Your task to perform on an android device: set the stopwatch Image 0: 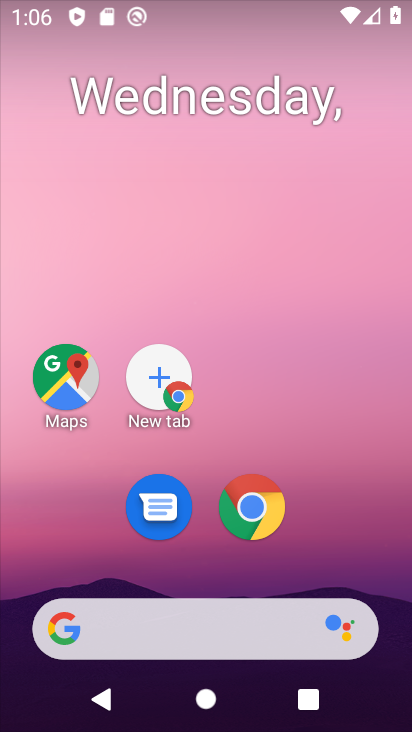
Step 0: drag from (328, 407) to (319, 160)
Your task to perform on an android device: set the stopwatch Image 1: 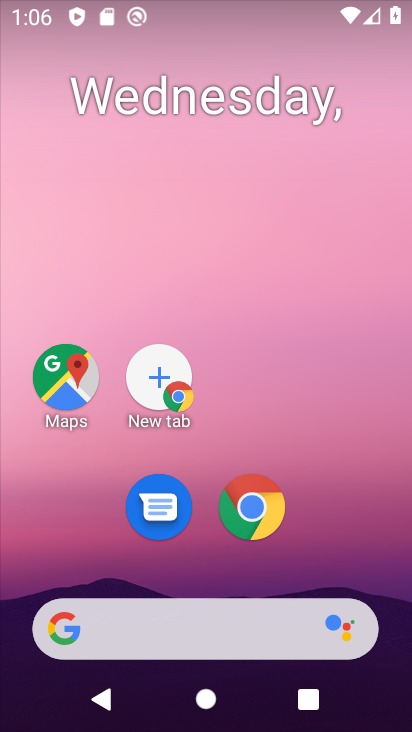
Step 1: drag from (354, 525) to (351, 166)
Your task to perform on an android device: set the stopwatch Image 2: 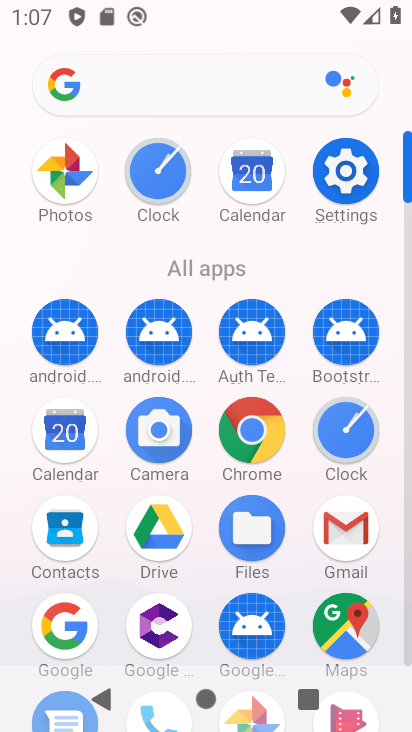
Step 2: click (331, 425)
Your task to perform on an android device: set the stopwatch Image 3: 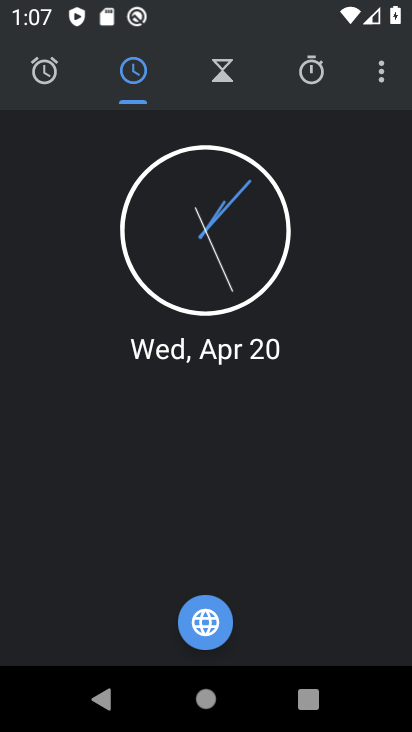
Step 3: click (312, 80)
Your task to perform on an android device: set the stopwatch Image 4: 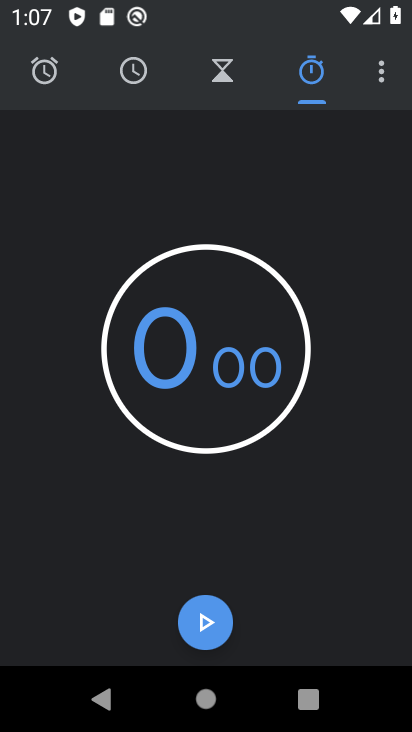
Step 4: click (215, 626)
Your task to perform on an android device: set the stopwatch Image 5: 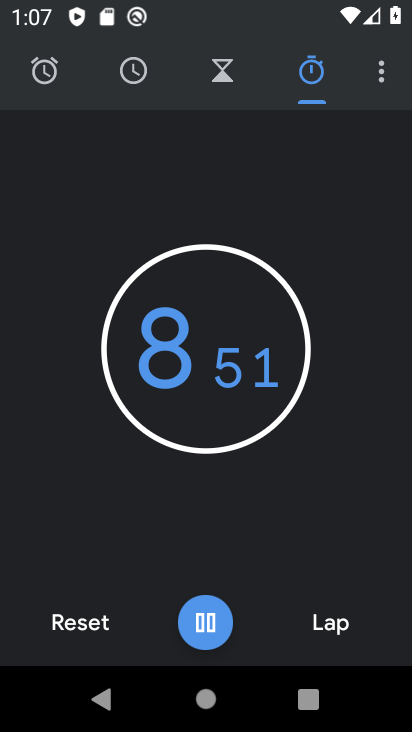
Step 5: task complete